Your task to perform on an android device: Toggle the flashlight Image 0: 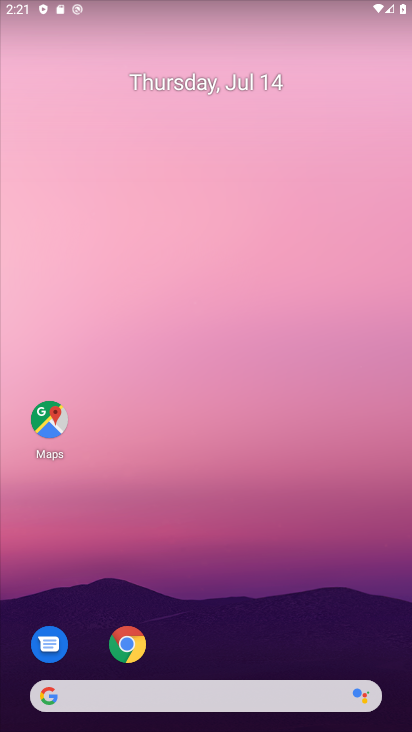
Step 0: drag from (265, 8) to (283, 357)
Your task to perform on an android device: Toggle the flashlight Image 1: 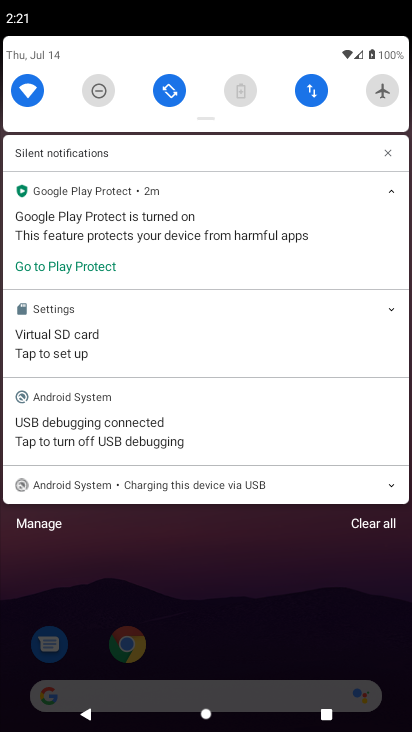
Step 1: drag from (204, 97) to (207, 524)
Your task to perform on an android device: Toggle the flashlight Image 2: 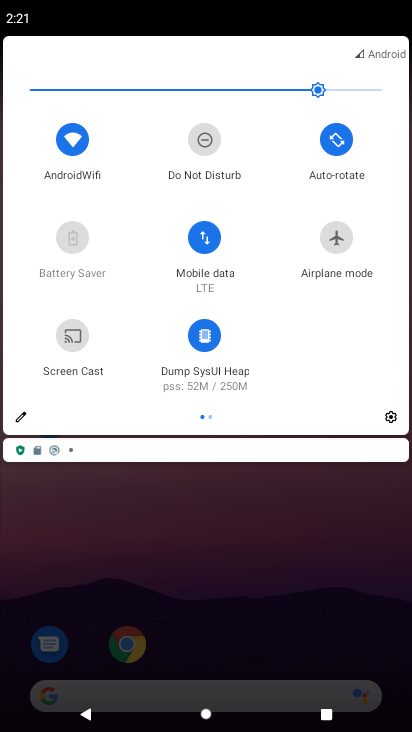
Step 2: drag from (336, 345) to (1, 305)
Your task to perform on an android device: Toggle the flashlight Image 3: 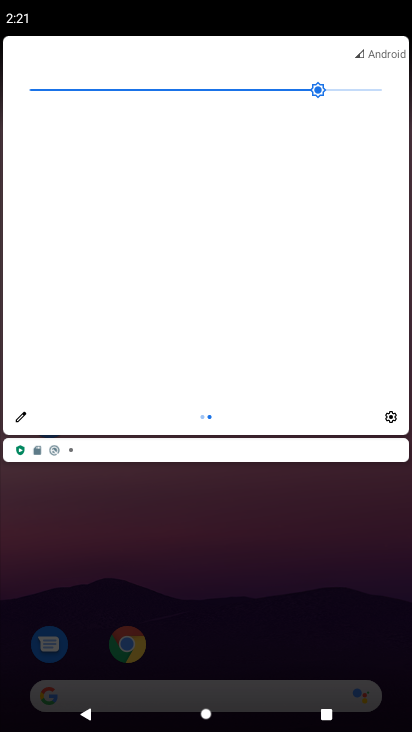
Step 3: click (19, 408)
Your task to perform on an android device: Toggle the flashlight Image 4: 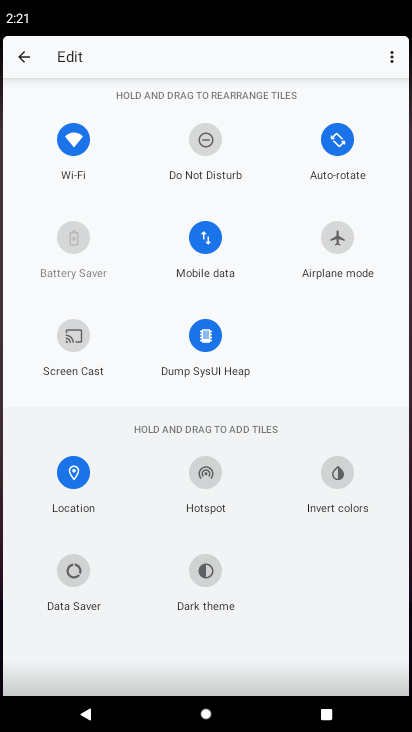
Step 4: task complete